Your task to perform on an android device: Open Google Maps Image 0: 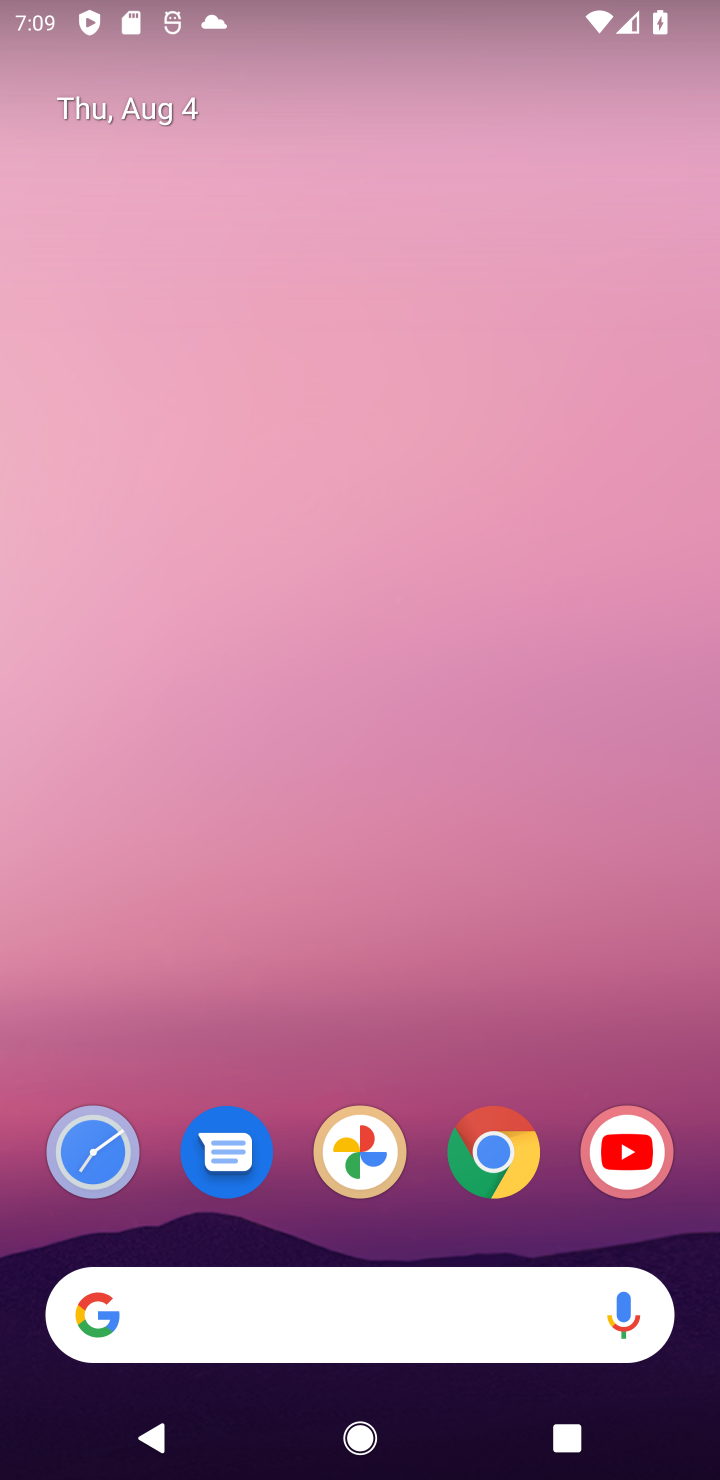
Step 0: drag from (57, 898) to (216, 375)
Your task to perform on an android device: Open Google Maps Image 1: 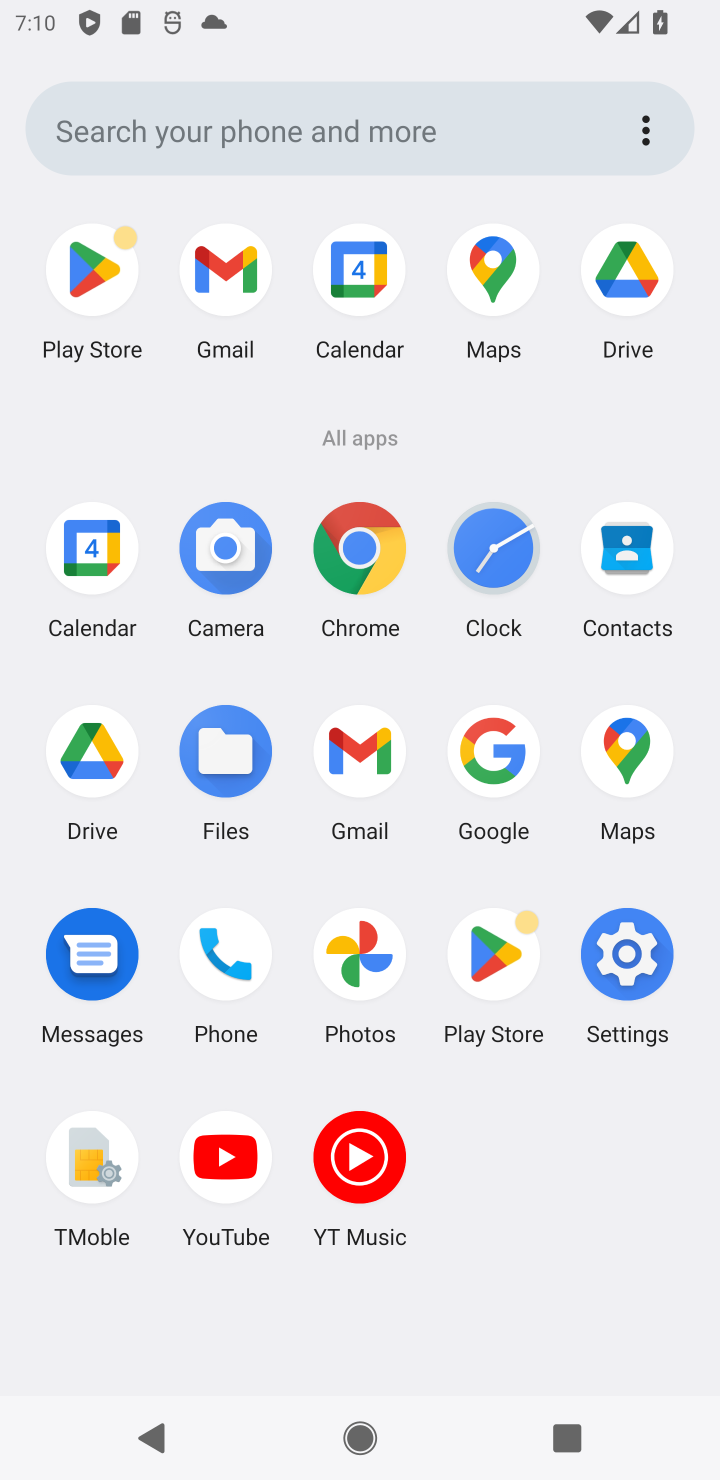
Step 1: click (637, 750)
Your task to perform on an android device: Open Google Maps Image 2: 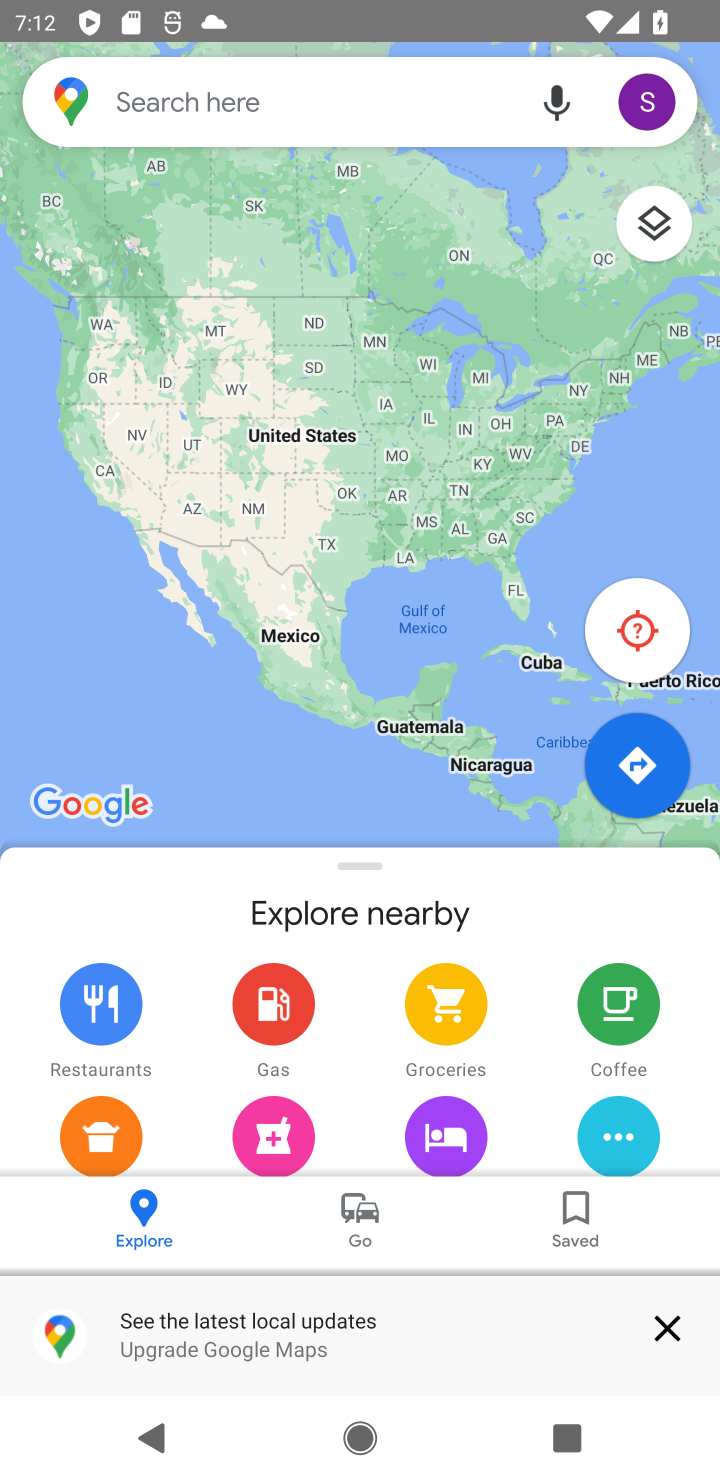
Step 2: task complete